Your task to perform on an android device: set the stopwatch Image 0: 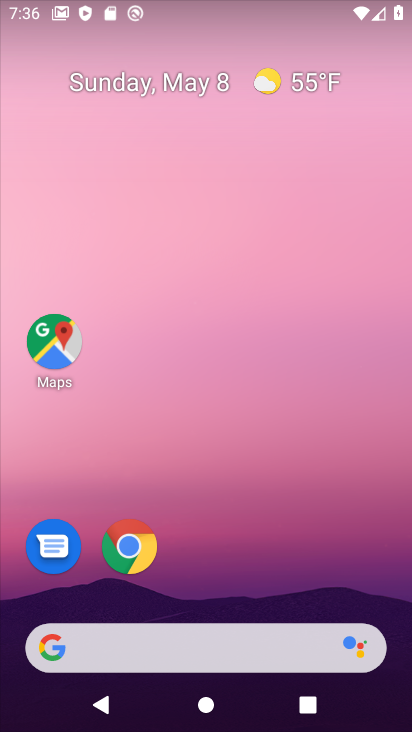
Step 0: drag from (261, 513) to (309, 48)
Your task to perform on an android device: set the stopwatch Image 1: 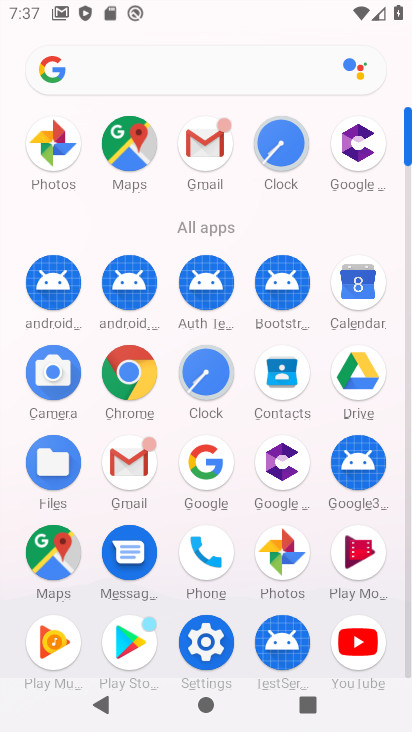
Step 1: click (277, 146)
Your task to perform on an android device: set the stopwatch Image 2: 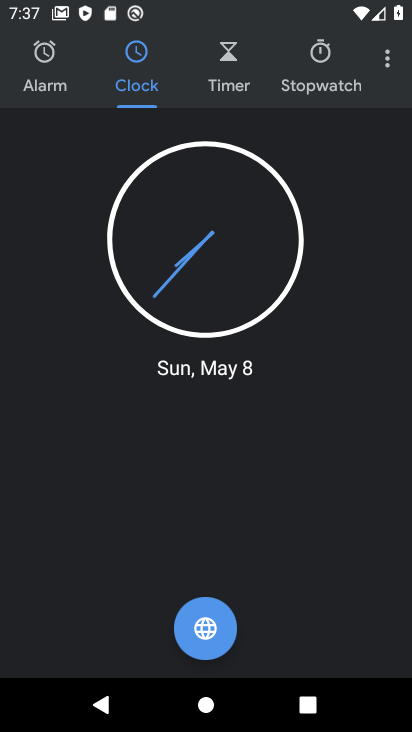
Step 2: click (314, 61)
Your task to perform on an android device: set the stopwatch Image 3: 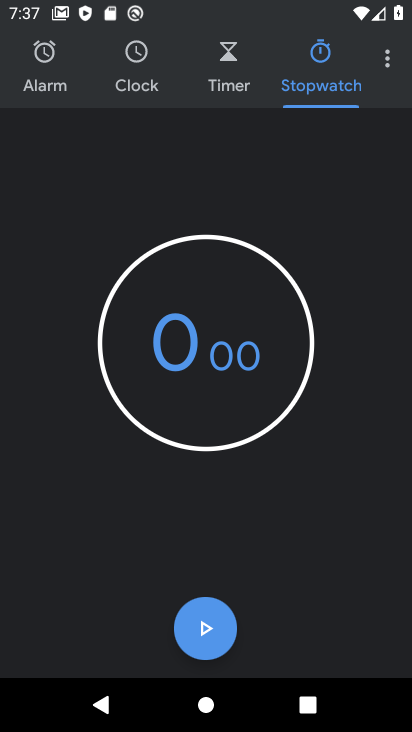
Step 3: click (254, 366)
Your task to perform on an android device: set the stopwatch Image 4: 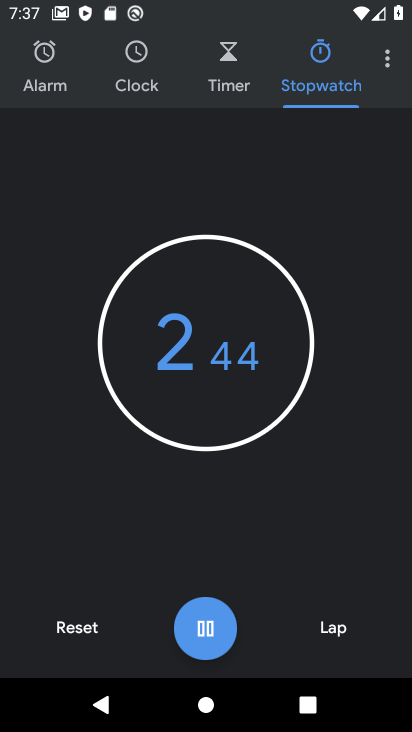
Step 4: click (201, 627)
Your task to perform on an android device: set the stopwatch Image 5: 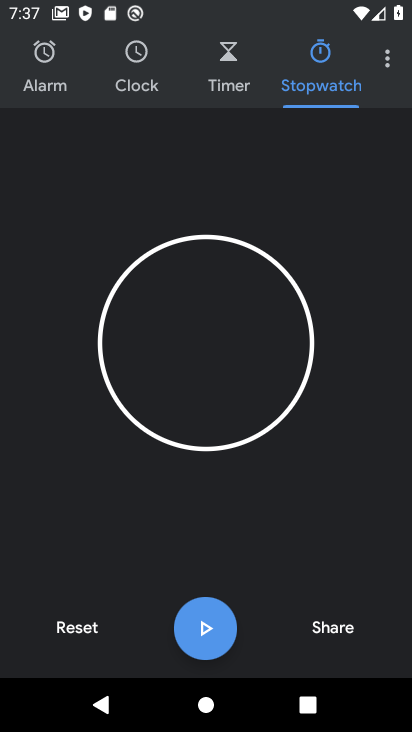
Step 5: task complete